Your task to perform on an android device: Open settings on Google Maps Image 0: 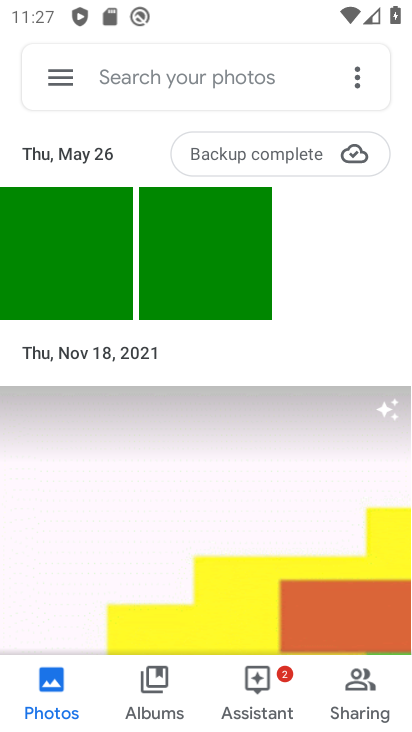
Step 0: press home button
Your task to perform on an android device: Open settings on Google Maps Image 1: 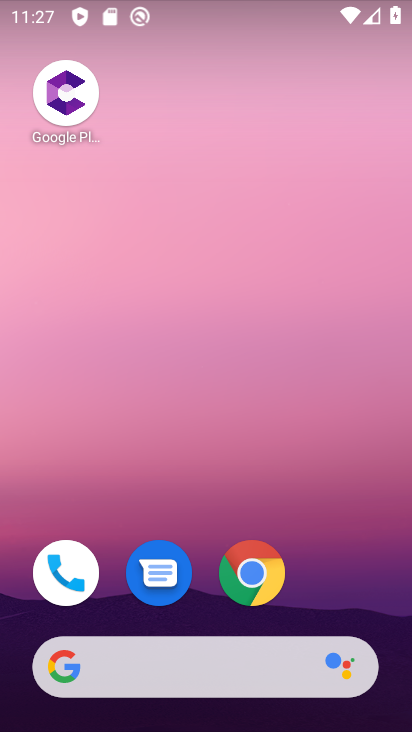
Step 1: drag from (341, 545) to (313, 138)
Your task to perform on an android device: Open settings on Google Maps Image 2: 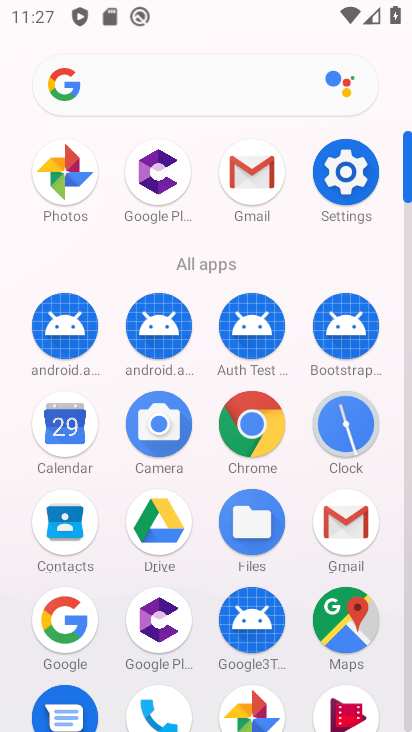
Step 2: click (348, 602)
Your task to perform on an android device: Open settings on Google Maps Image 3: 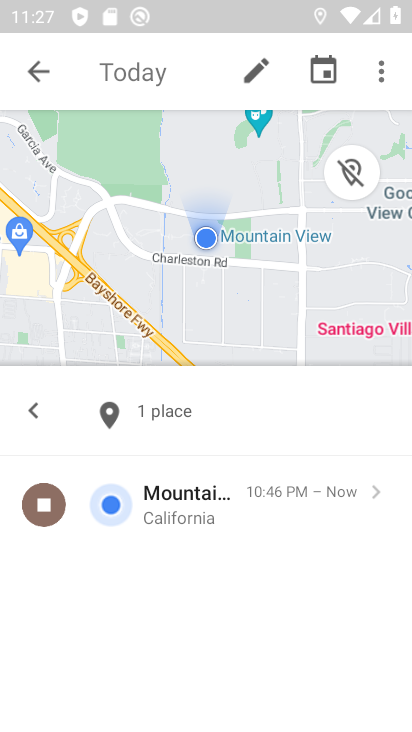
Step 3: click (379, 70)
Your task to perform on an android device: Open settings on Google Maps Image 4: 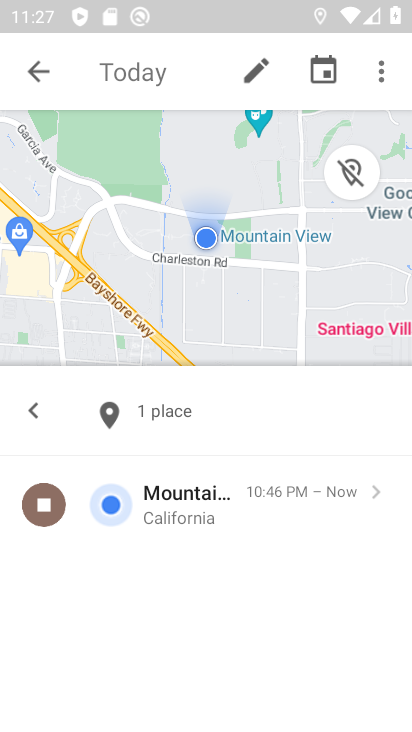
Step 4: click (378, 69)
Your task to perform on an android device: Open settings on Google Maps Image 5: 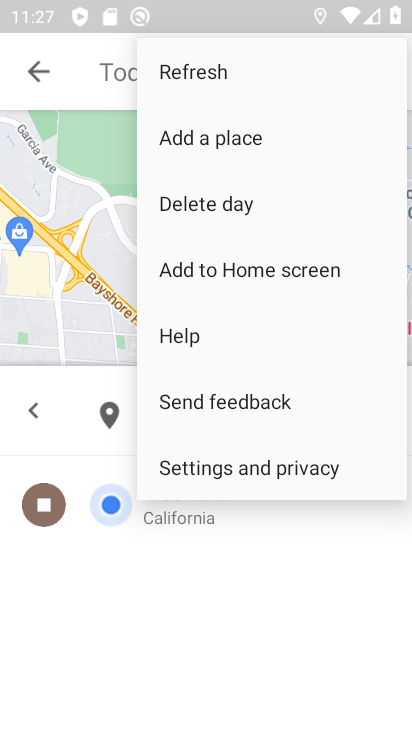
Step 5: click (224, 474)
Your task to perform on an android device: Open settings on Google Maps Image 6: 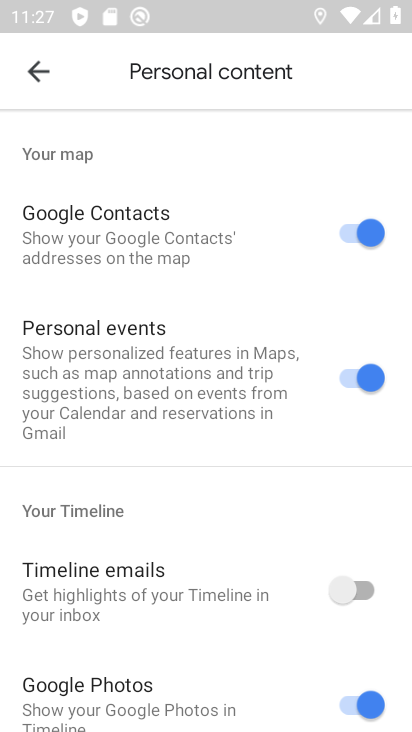
Step 6: task complete